Your task to perform on an android device: Go to Google Image 0: 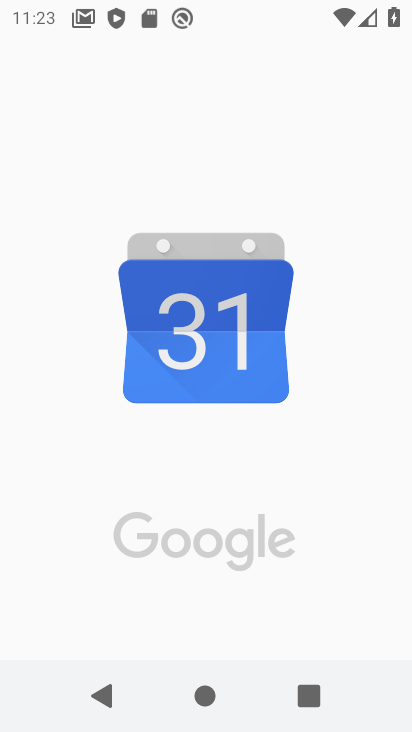
Step 0: press home button
Your task to perform on an android device: Go to Google Image 1: 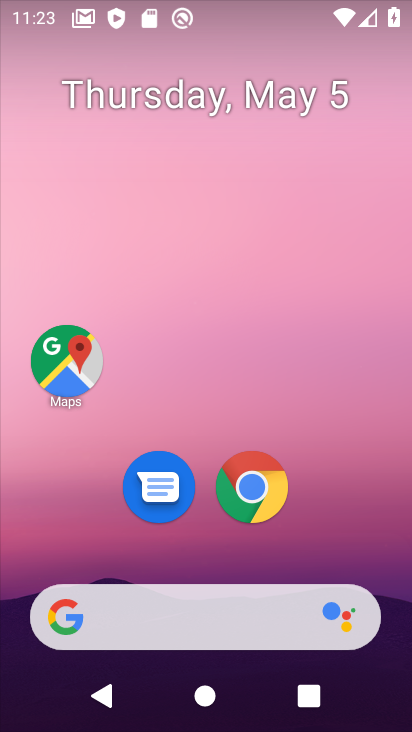
Step 1: drag from (319, 440) to (61, 136)
Your task to perform on an android device: Go to Google Image 2: 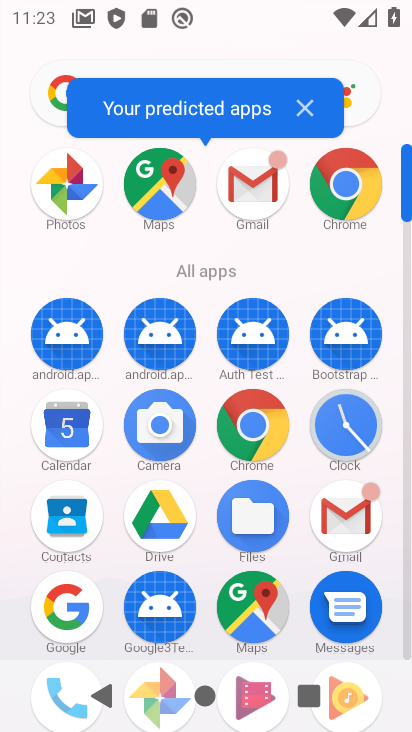
Step 2: click (65, 607)
Your task to perform on an android device: Go to Google Image 3: 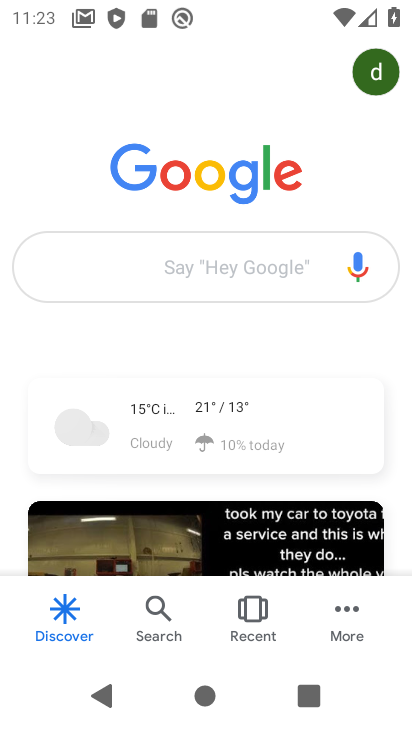
Step 3: task complete